Your task to perform on an android device: Search for "razer kraken" on bestbuy.com, select the first entry, and add it to the cart. Image 0: 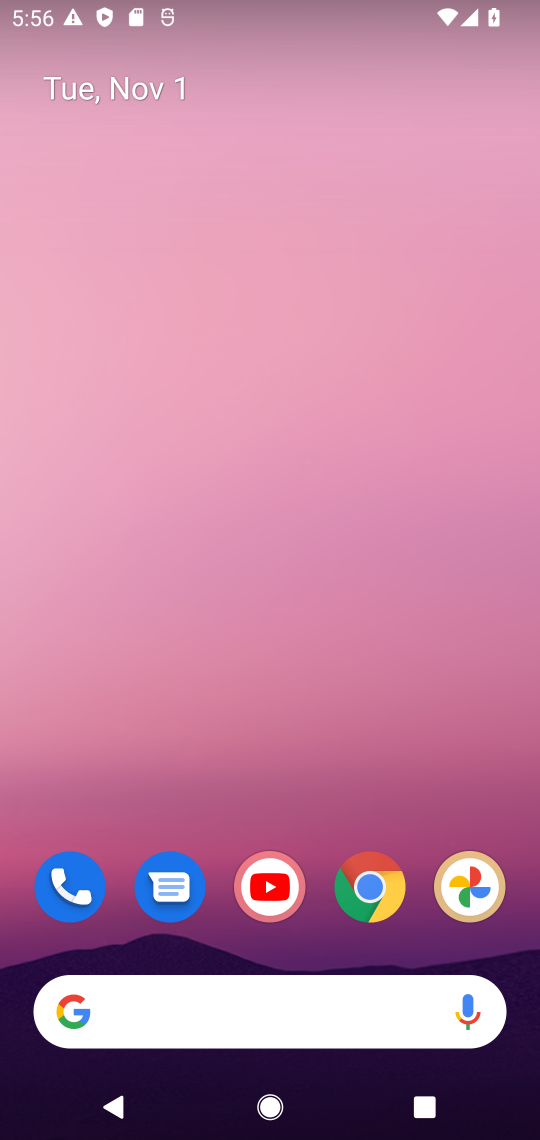
Step 0: drag from (314, 839) to (355, 3)
Your task to perform on an android device: Search for "razer kraken" on bestbuy.com, select the first entry, and add it to the cart. Image 1: 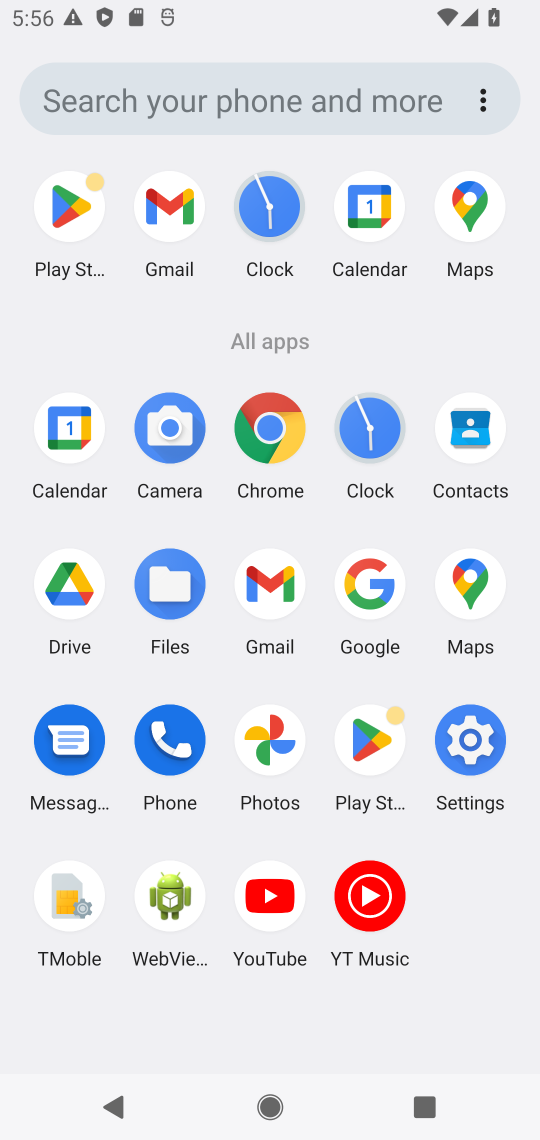
Step 1: click (268, 422)
Your task to perform on an android device: Search for "razer kraken" on bestbuy.com, select the first entry, and add it to the cart. Image 2: 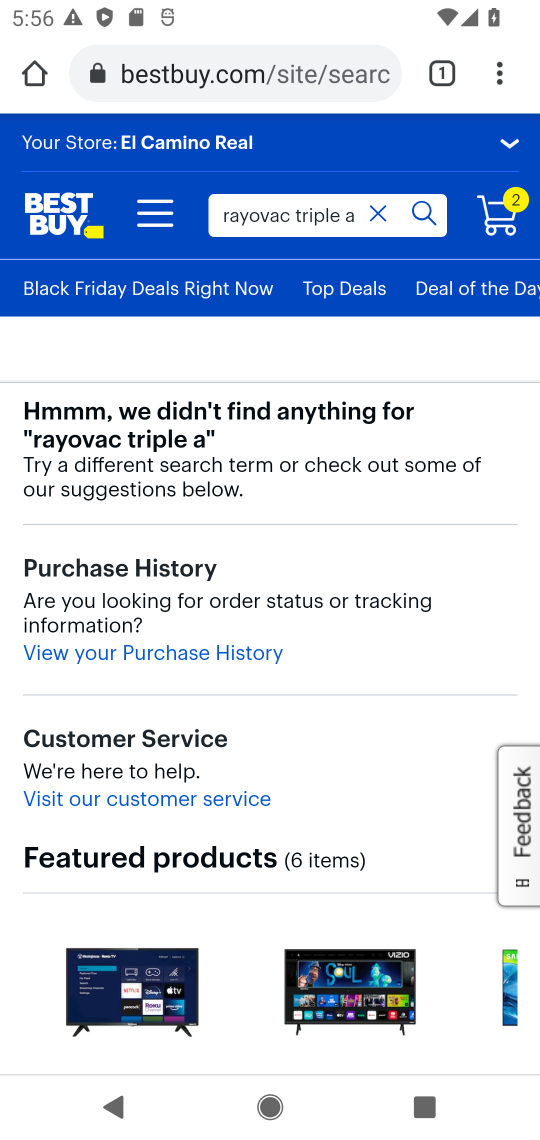
Step 2: click (372, 211)
Your task to perform on an android device: Search for "razer kraken" on bestbuy.com, select the first entry, and add it to the cart. Image 3: 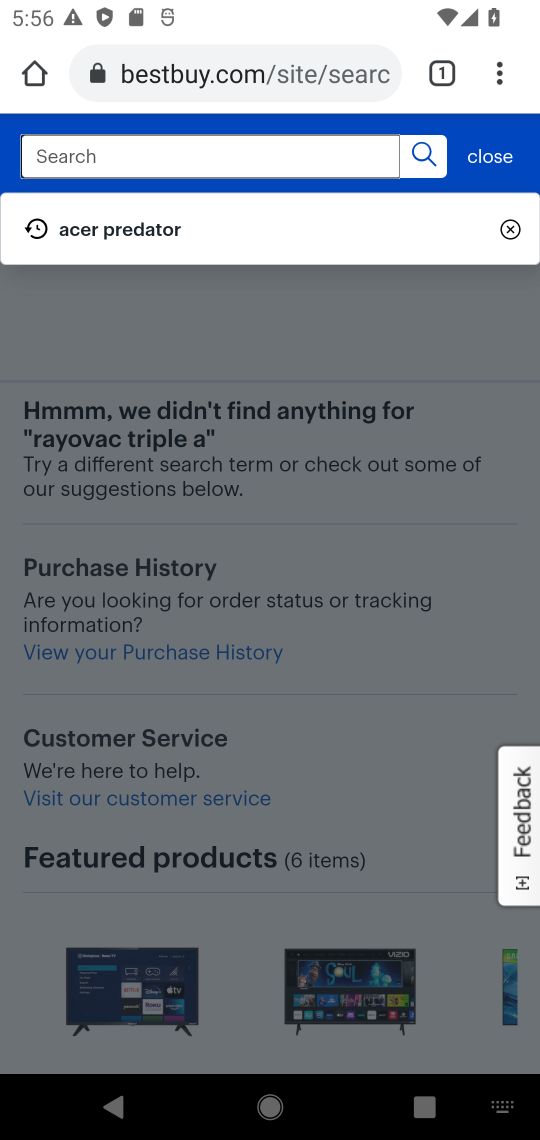
Step 3: type "razer kraken"
Your task to perform on an android device: Search for "razer kraken" on bestbuy.com, select the first entry, and add it to the cart. Image 4: 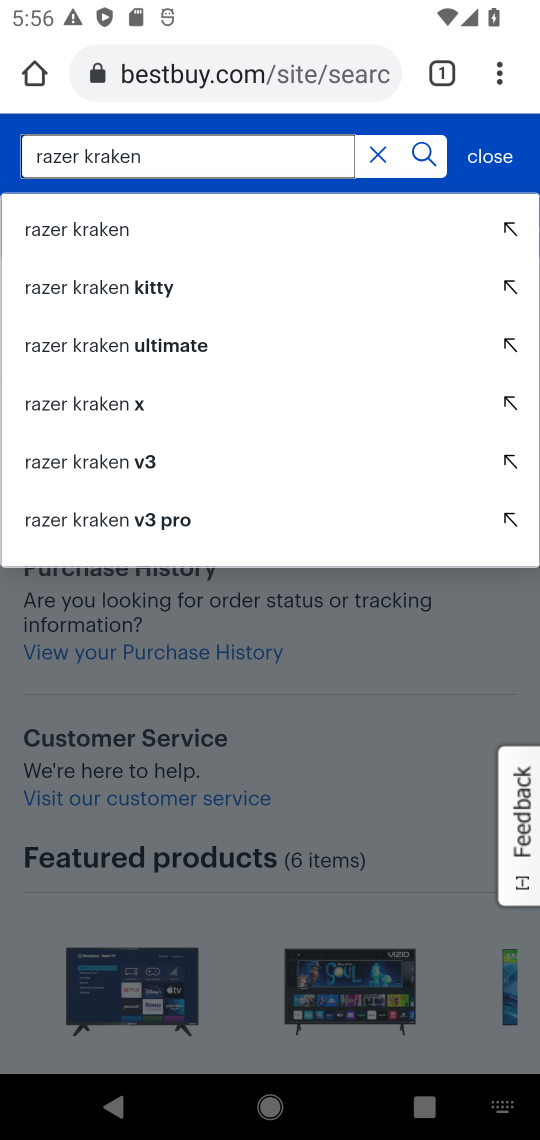
Step 4: click (110, 225)
Your task to perform on an android device: Search for "razer kraken" on bestbuy.com, select the first entry, and add it to the cart. Image 5: 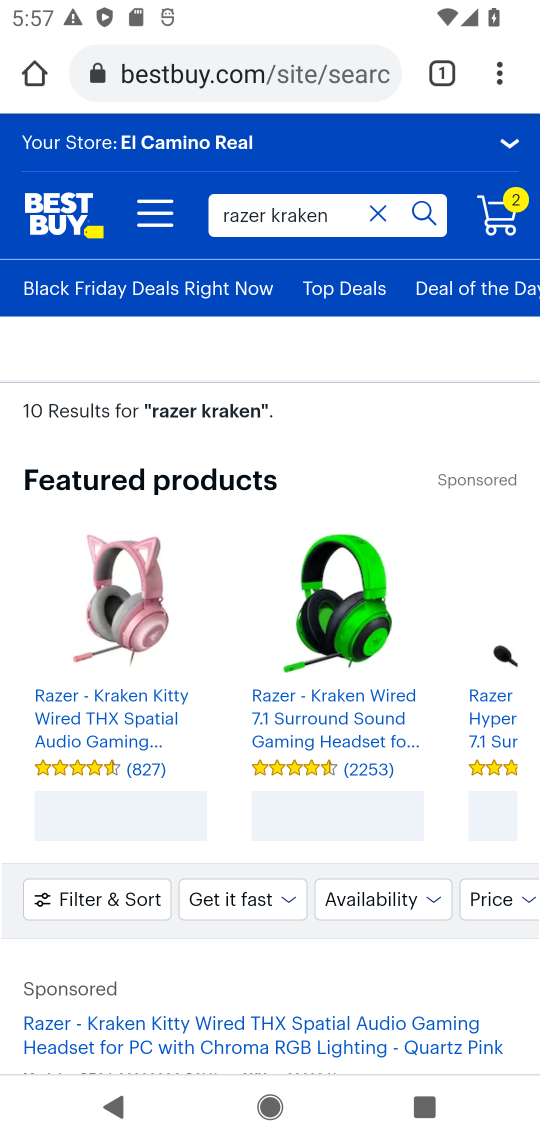
Step 5: drag from (253, 958) to (358, 266)
Your task to perform on an android device: Search for "razer kraken" on bestbuy.com, select the first entry, and add it to the cart. Image 6: 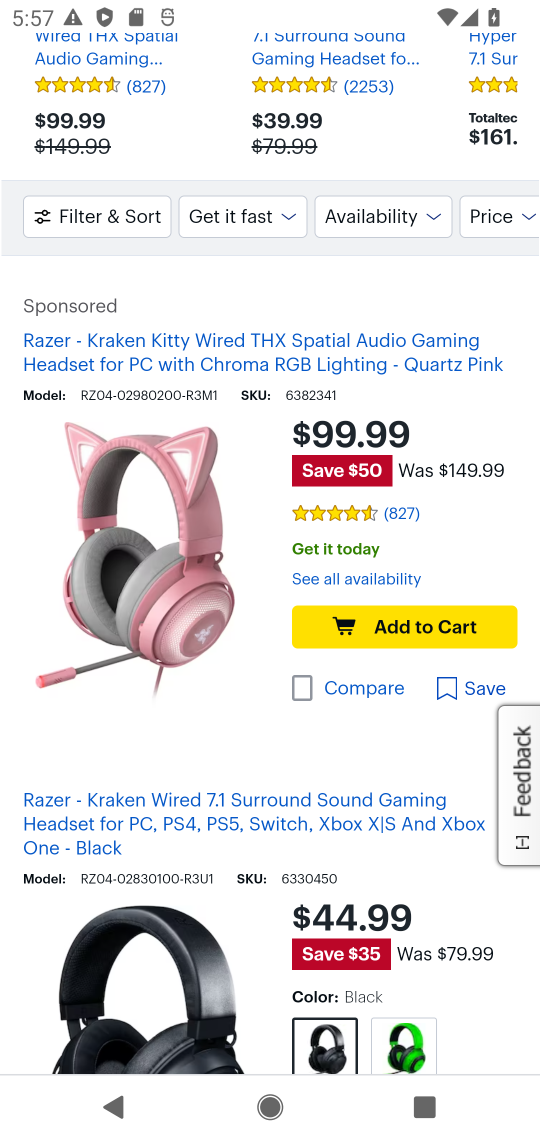
Step 6: click (237, 463)
Your task to perform on an android device: Search for "razer kraken" on bestbuy.com, select the first entry, and add it to the cart. Image 7: 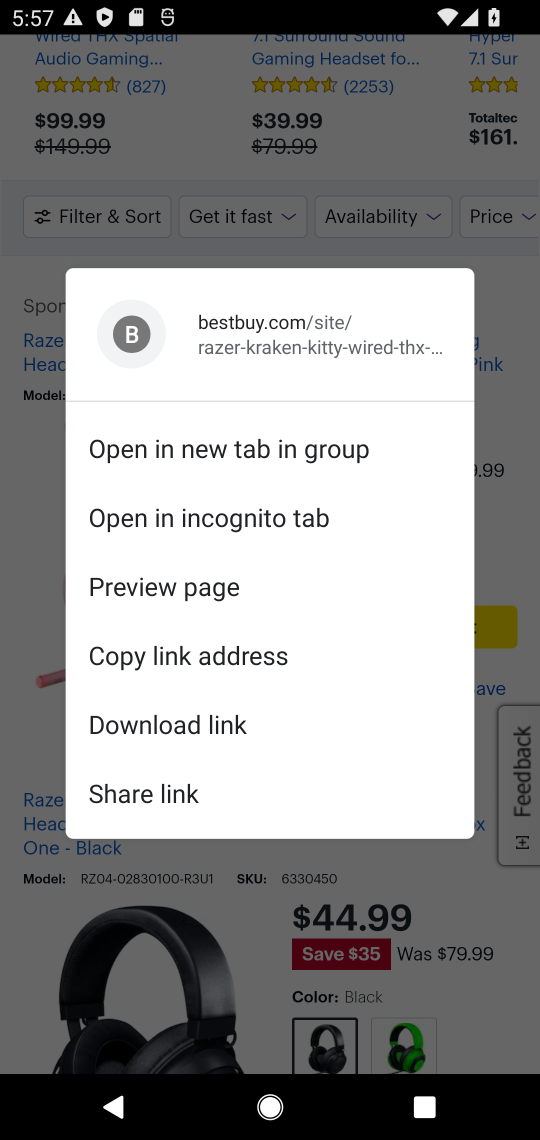
Step 7: click (36, 502)
Your task to perform on an android device: Search for "razer kraken" on bestbuy.com, select the first entry, and add it to the cart. Image 8: 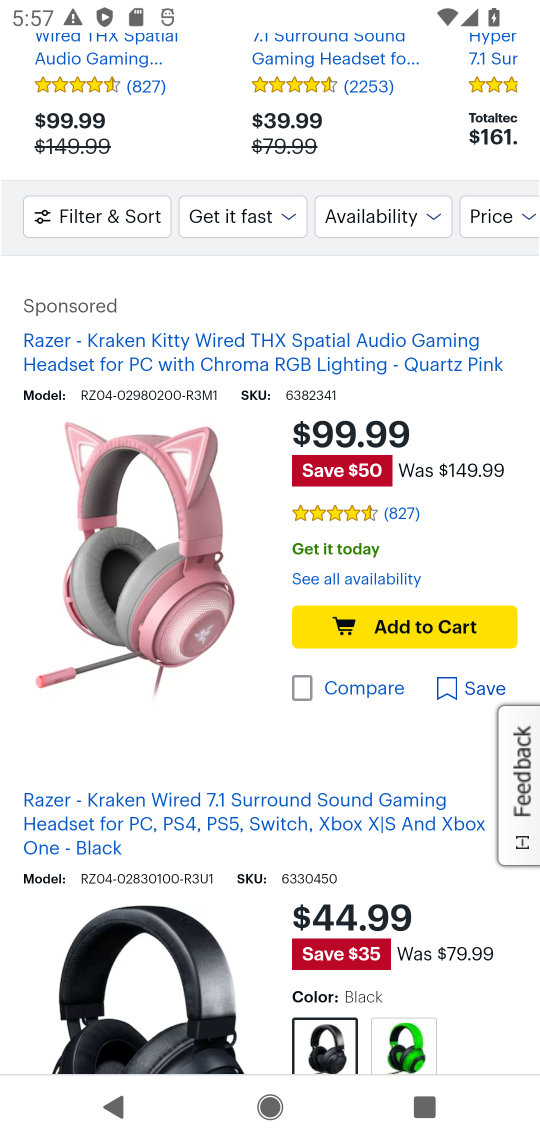
Step 8: click (331, 430)
Your task to perform on an android device: Search for "razer kraken" on bestbuy.com, select the first entry, and add it to the cart. Image 9: 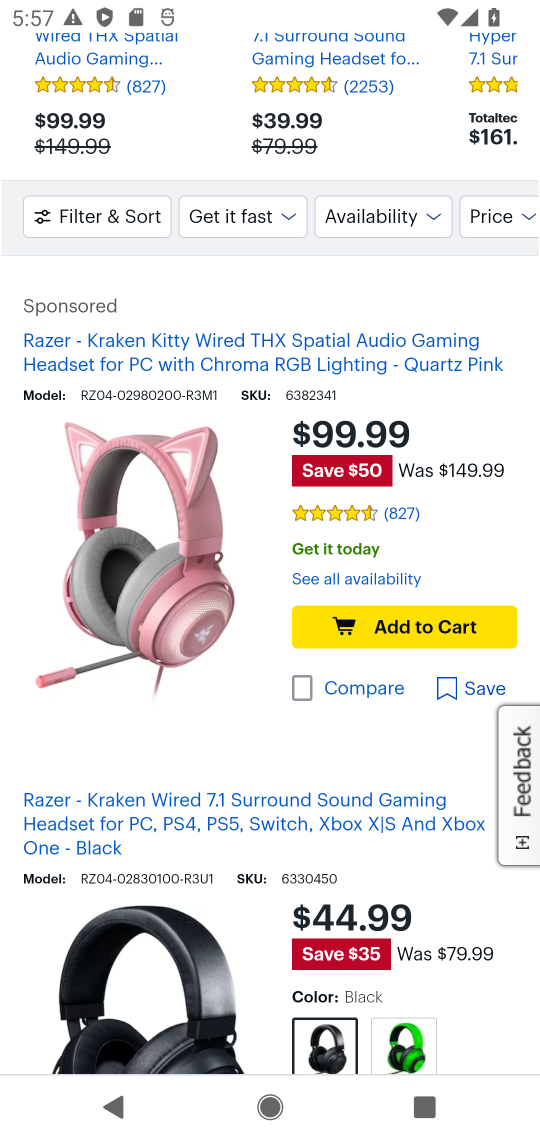
Step 9: click (206, 367)
Your task to perform on an android device: Search for "razer kraken" on bestbuy.com, select the first entry, and add it to the cart. Image 10: 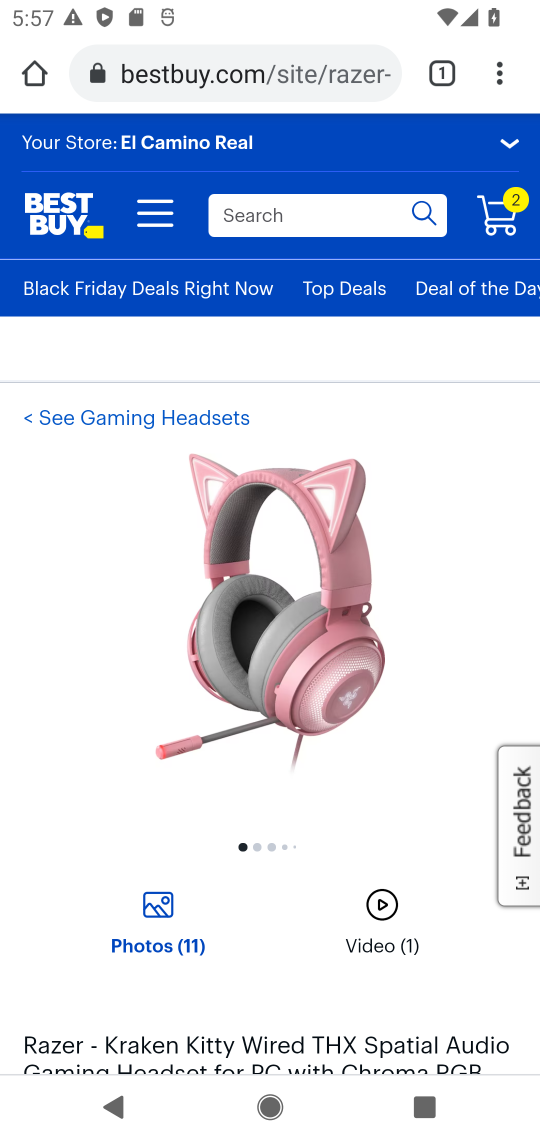
Step 10: drag from (270, 953) to (291, 427)
Your task to perform on an android device: Search for "razer kraken" on bestbuy.com, select the first entry, and add it to the cart. Image 11: 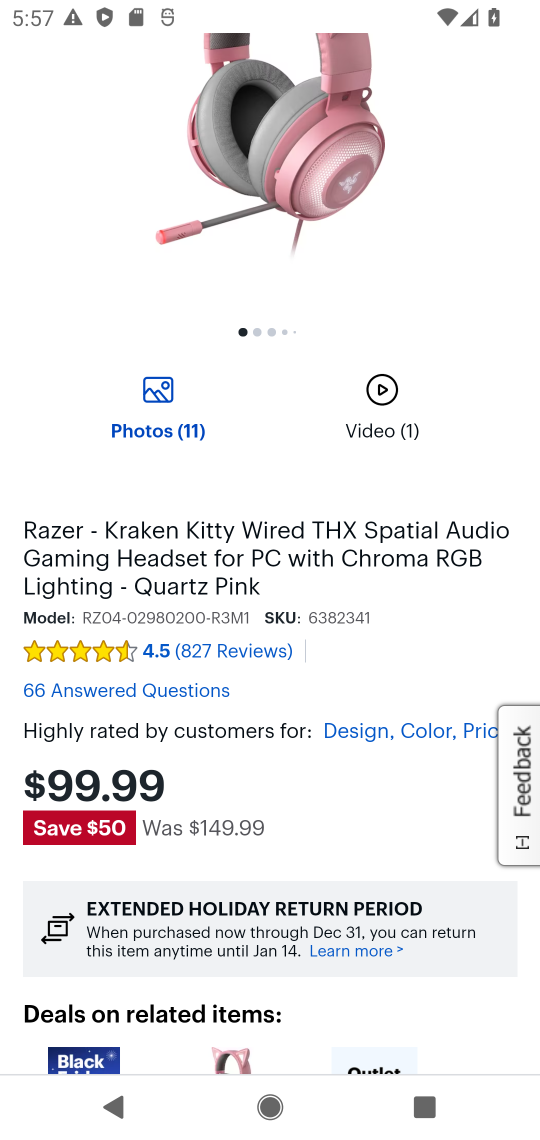
Step 11: drag from (293, 853) to (354, 208)
Your task to perform on an android device: Search for "razer kraken" on bestbuy.com, select the first entry, and add it to the cart. Image 12: 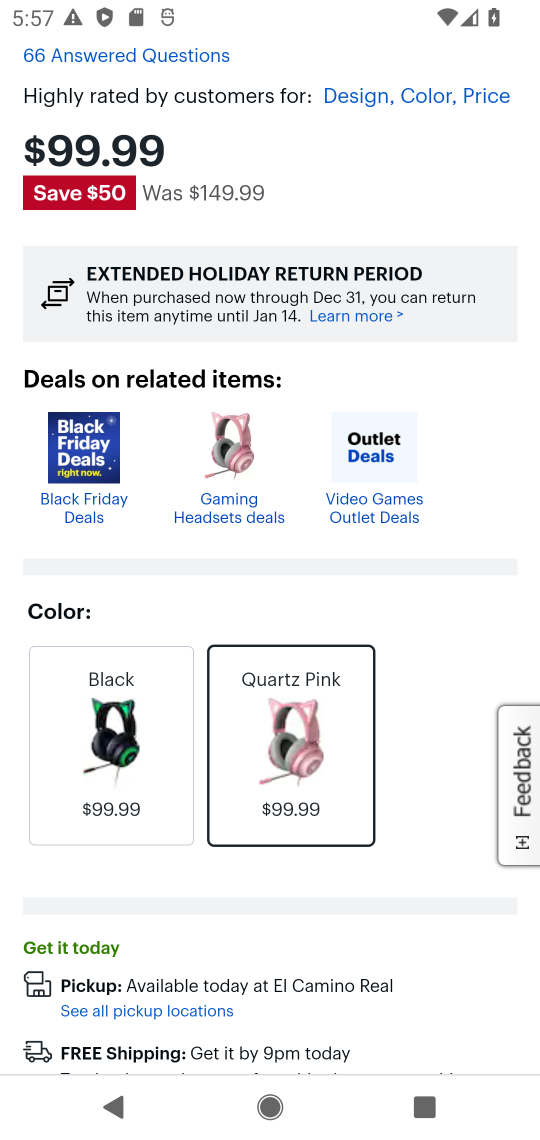
Step 12: drag from (243, 938) to (308, 420)
Your task to perform on an android device: Search for "razer kraken" on bestbuy.com, select the first entry, and add it to the cart. Image 13: 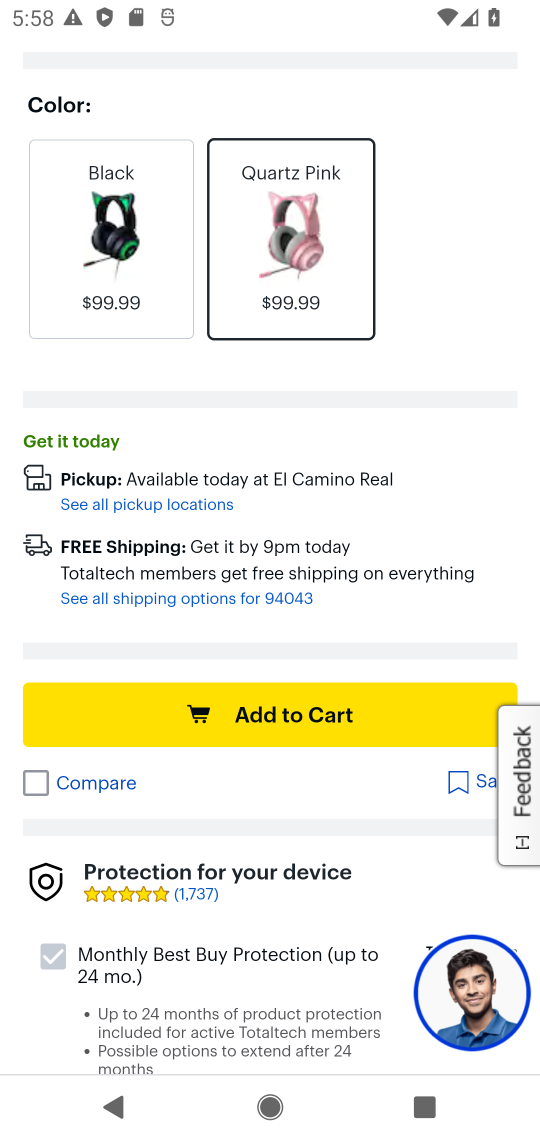
Step 13: click (292, 713)
Your task to perform on an android device: Search for "razer kraken" on bestbuy.com, select the first entry, and add it to the cart. Image 14: 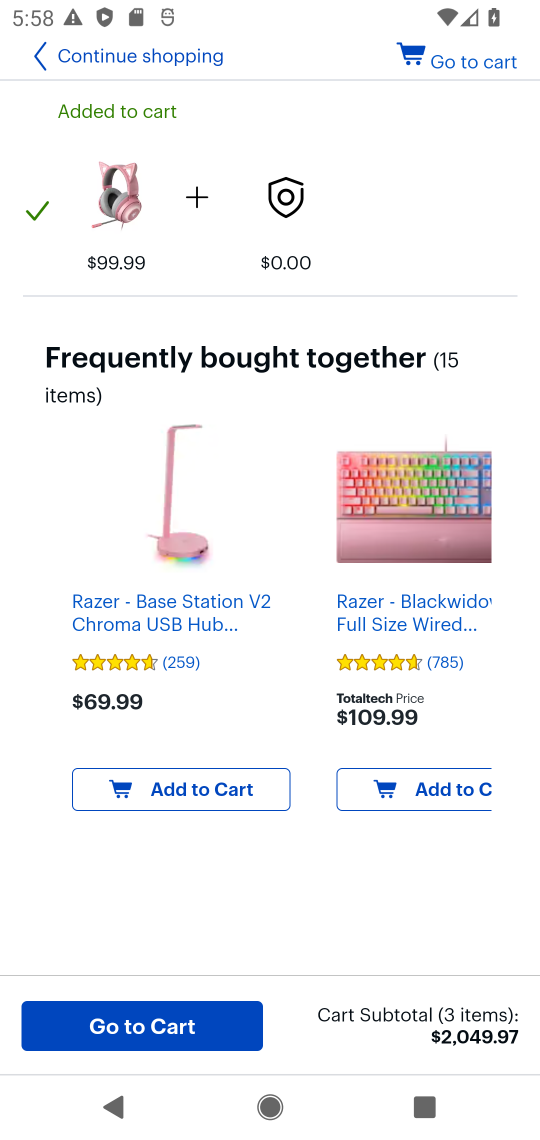
Step 14: click (134, 1025)
Your task to perform on an android device: Search for "razer kraken" on bestbuy.com, select the first entry, and add it to the cart. Image 15: 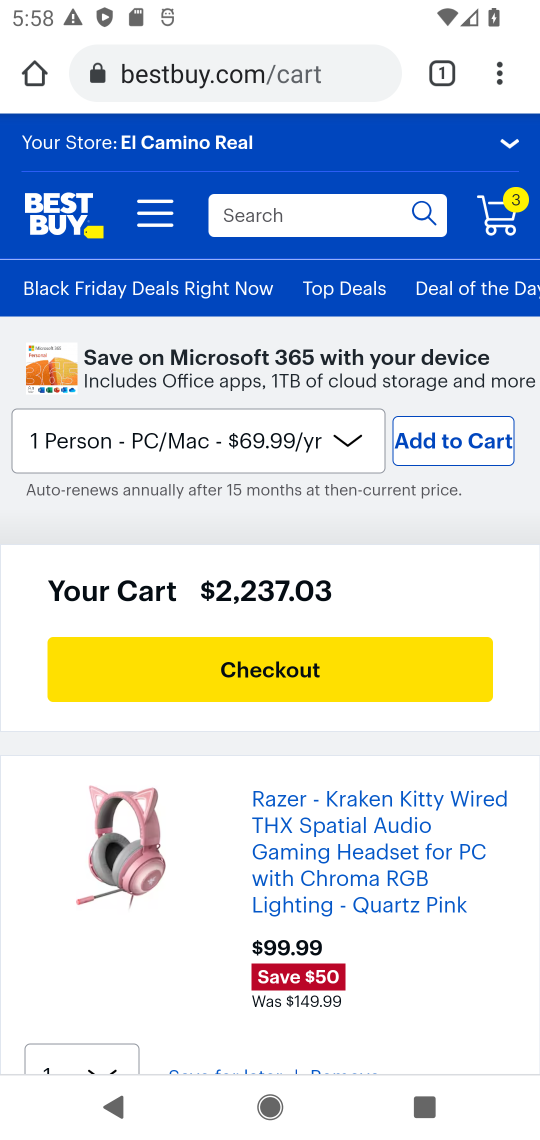
Step 15: click (271, 666)
Your task to perform on an android device: Search for "razer kraken" on bestbuy.com, select the first entry, and add it to the cart. Image 16: 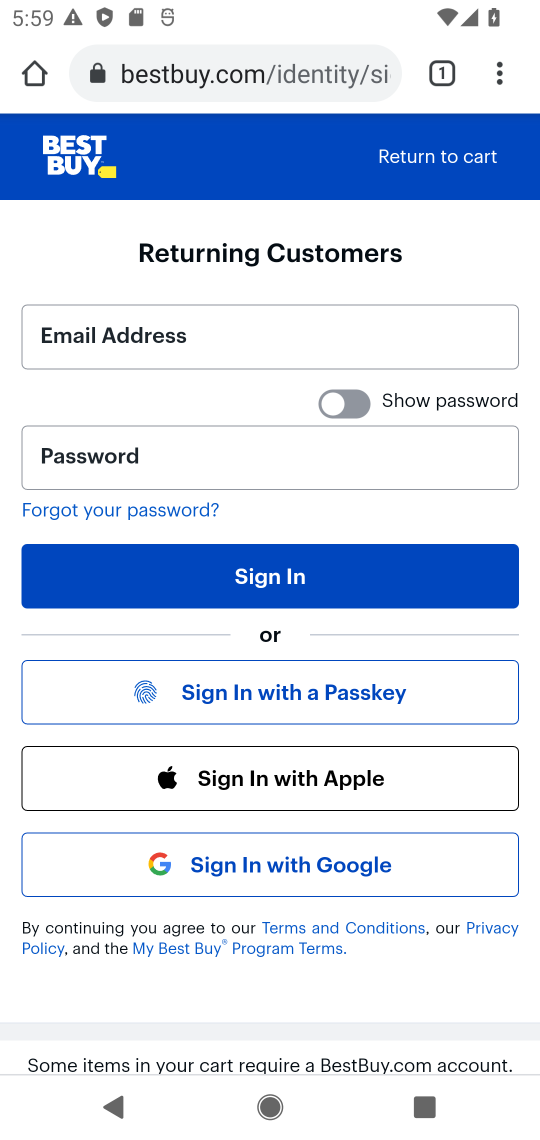
Step 16: task complete